Your task to perform on an android device: turn on priority inbox in the gmail app Image 0: 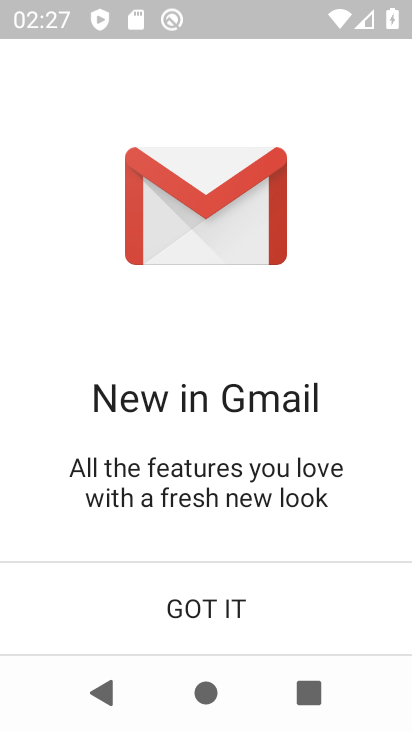
Step 0: click (257, 620)
Your task to perform on an android device: turn on priority inbox in the gmail app Image 1: 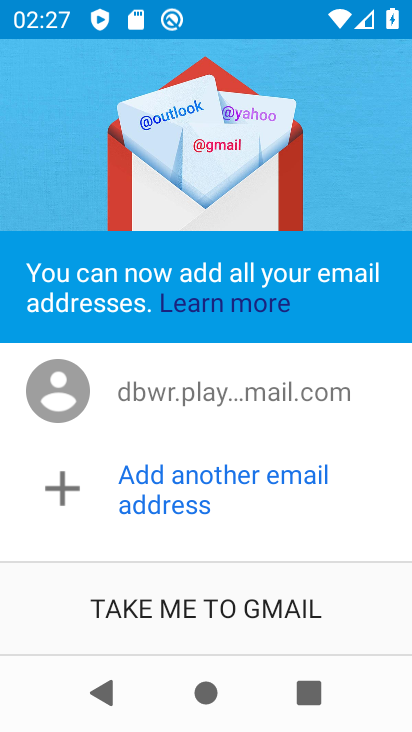
Step 1: click (257, 620)
Your task to perform on an android device: turn on priority inbox in the gmail app Image 2: 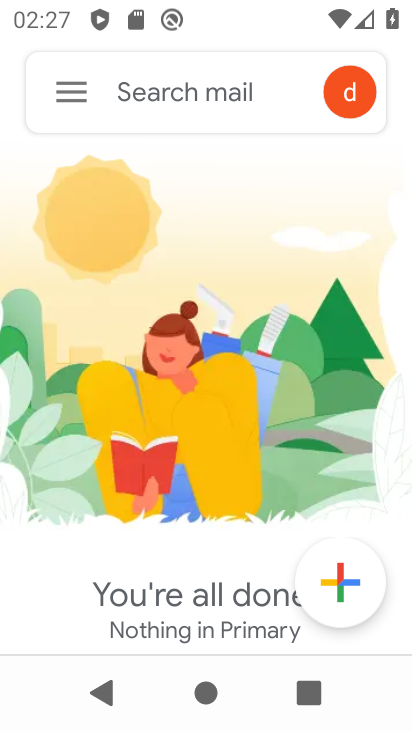
Step 2: click (58, 92)
Your task to perform on an android device: turn on priority inbox in the gmail app Image 3: 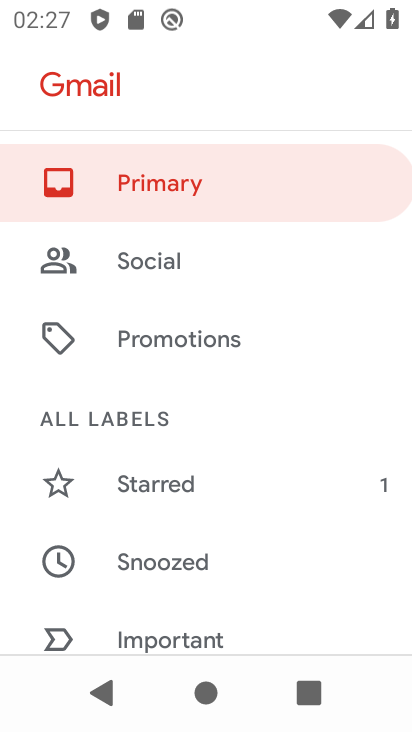
Step 3: drag from (290, 580) to (265, 207)
Your task to perform on an android device: turn on priority inbox in the gmail app Image 4: 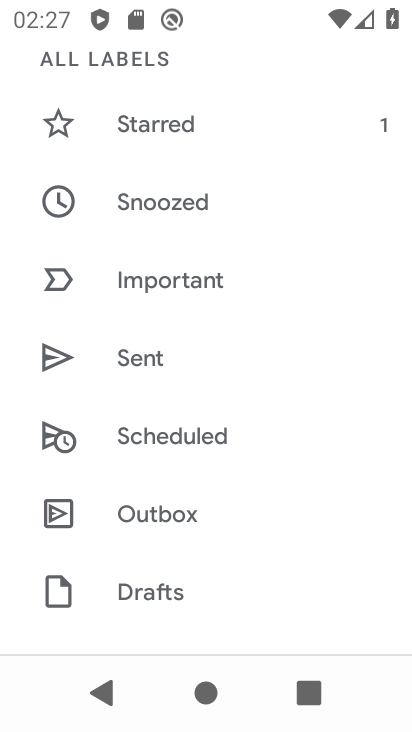
Step 4: drag from (313, 537) to (290, 143)
Your task to perform on an android device: turn on priority inbox in the gmail app Image 5: 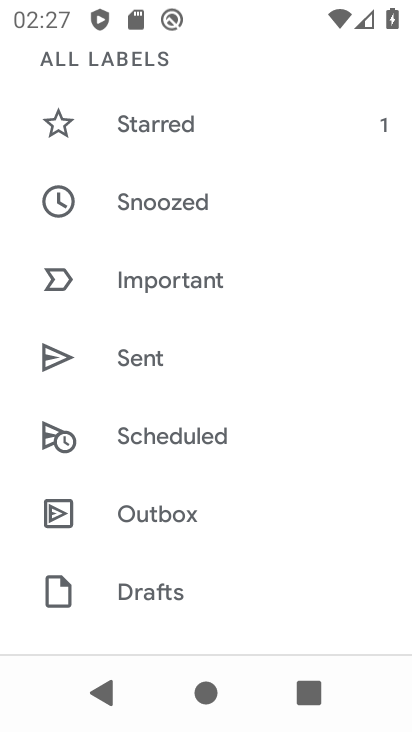
Step 5: drag from (283, 558) to (285, 154)
Your task to perform on an android device: turn on priority inbox in the gmail app Image 6: 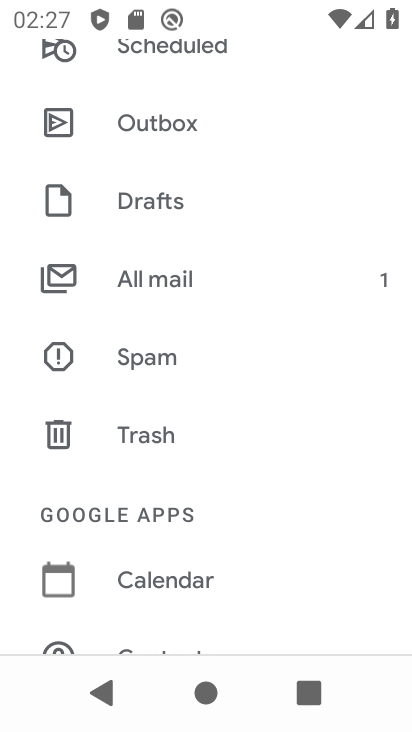
Step 6: drag from (240, 542) to (261, 157)
Your task to perform on an android device: turn on priority inbox in the gmail app Image 7: 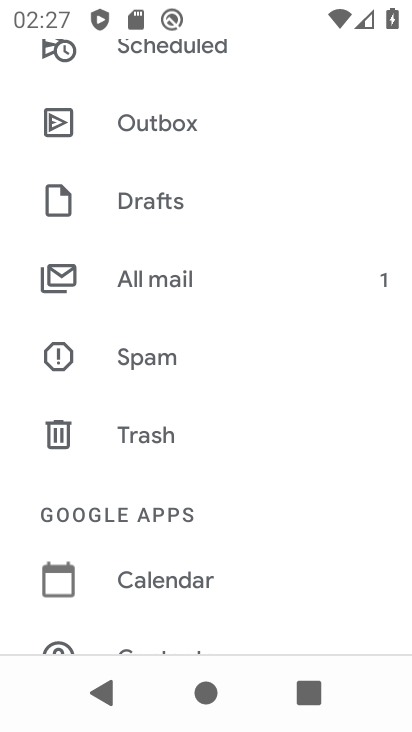
Step 7: drag from (284, 483) to (268, 191)
Your task to perform on an android device: turn on priority inbox in the gmail app Image 8: 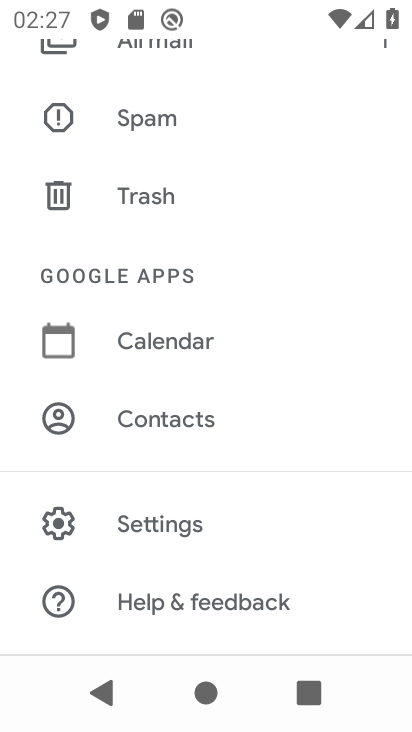
Step 8: click (229, 537)
Your task to perform on an android device: turn on priority inbox in the gmail app Image 9: 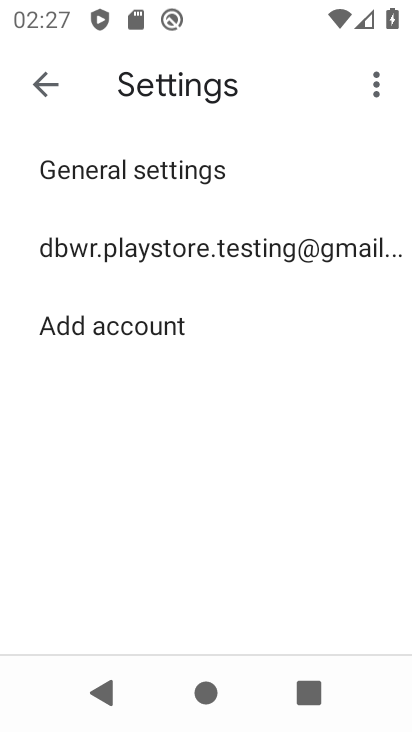
Step 9: click (172, 251)
Your task to perform on an android device: turn on priority inbox in the gmail app Image 10: 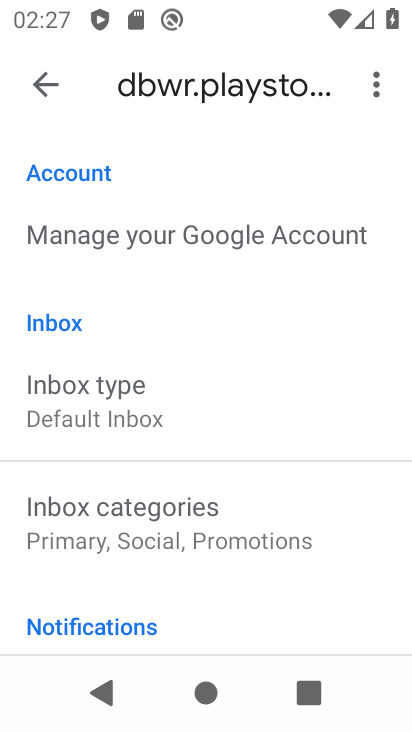
Step 10: click (124, 412)
Your task to perform on an android device: turn on priority inbox in the gmail app Image 11: 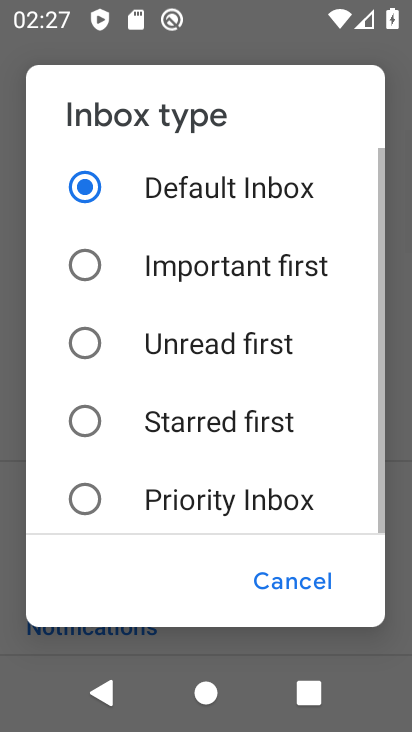
Step 11: click (161, 483)
Your task to perform on an android device: turn on priority inbox in the gmail app Image 12: 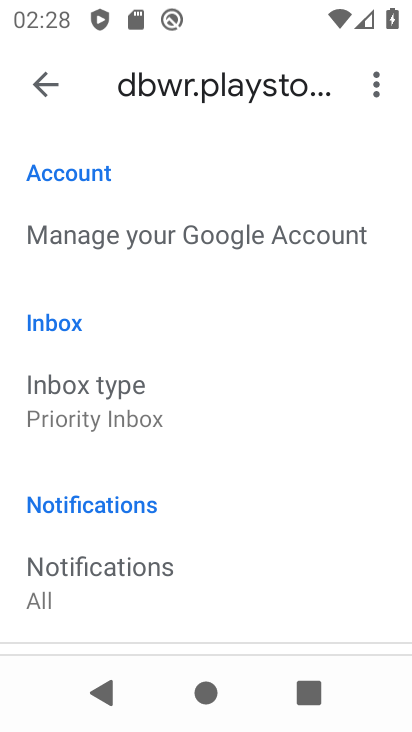
Step 12: task complete